Your task to perform on an android device: turn on the 12-hour format for clock Image 0: 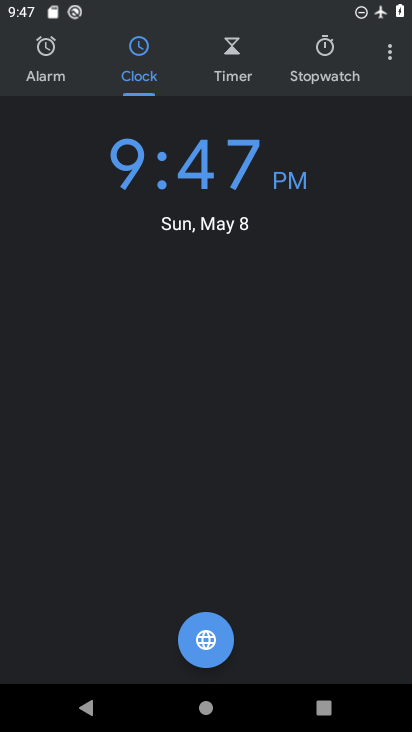
Step 0: click (386, 51)
Your task to perform on an android device: turn on the 12-hour format for clock Image 1: 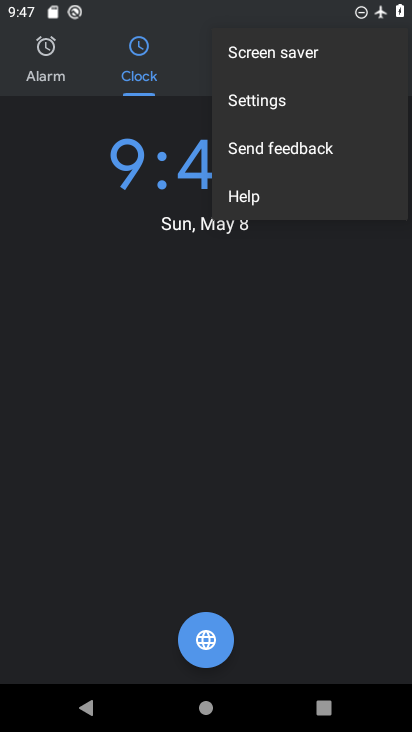
Step 1: click (261, 105)
Your task to perform on an android device: turn on the 12-hour format for clock Image 2: 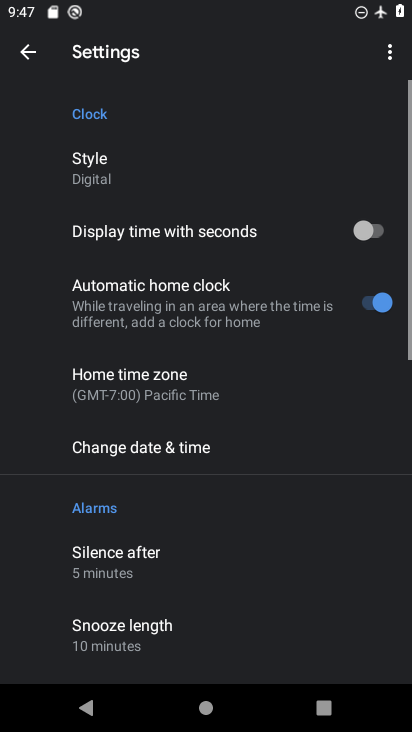
Step 2: click (149, 449)
Your task to perform on an android device: turn on the 12-hour format for clock Image 3: 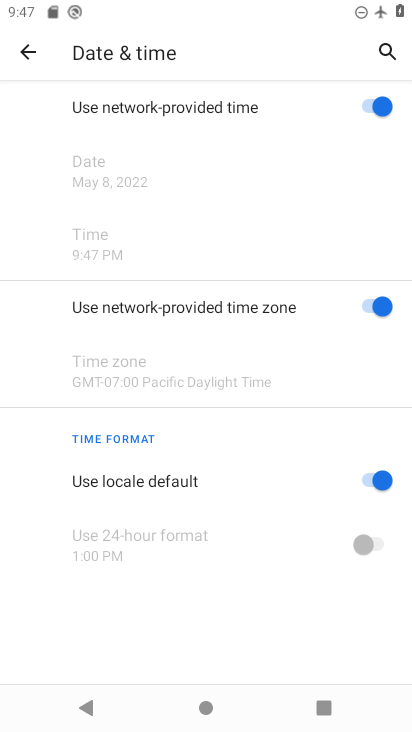
Step 3: task complete